Your task to perform on an android device: See recent photos Image 0: 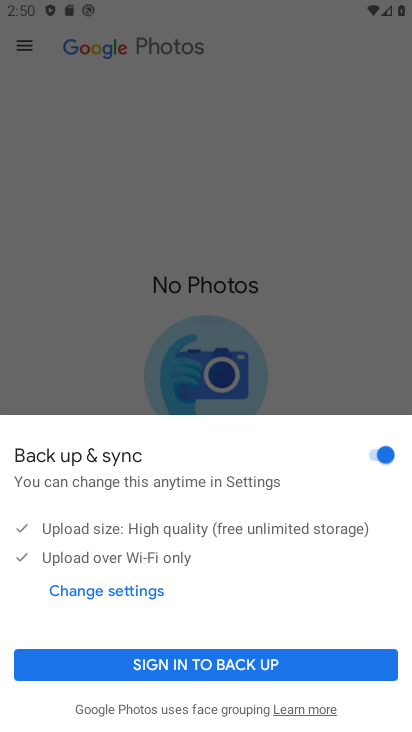
Step 0: press home button
Your task to perform on an android device: See recent photos Image 1: 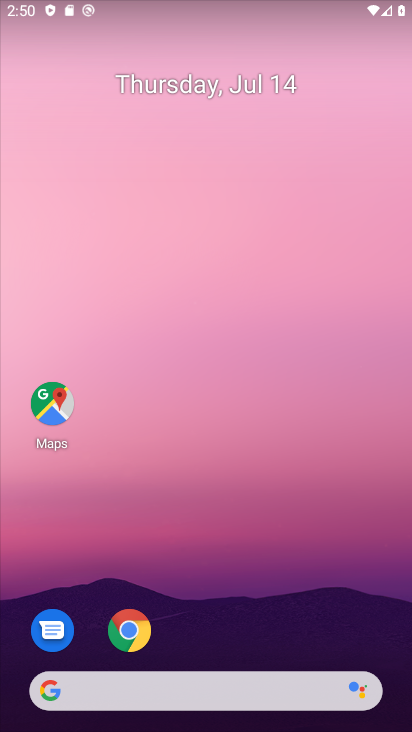
Step 1: drag from (236, 657) to (134, 92)
Your task to perform on an android device: See recent photos Image 2: 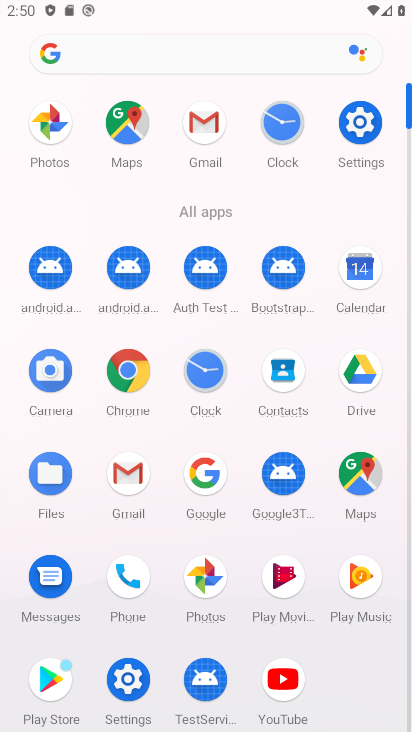
Step 2: click (58, 126)
Your task to perform on an android device: See recent photos Image 3: 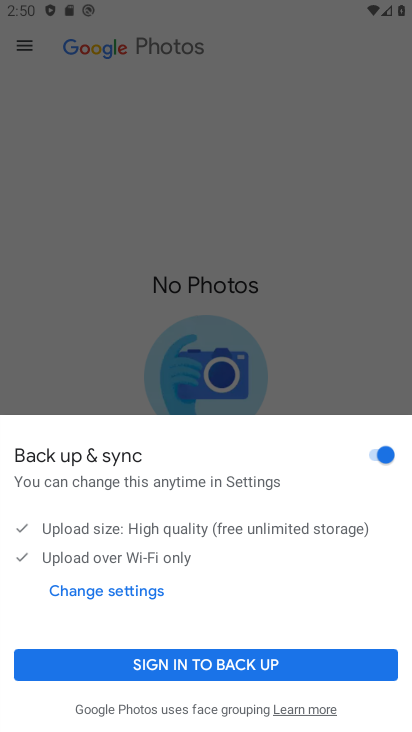
Step 3: click (184, 655)
Your task to perform on an android device: See recent photos Image 4: 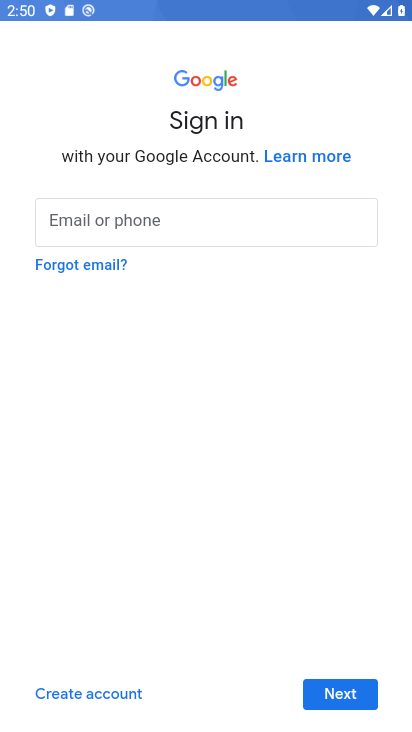
Step 4: press back button
Your task to perform on an android device: See recent photos Image 5: 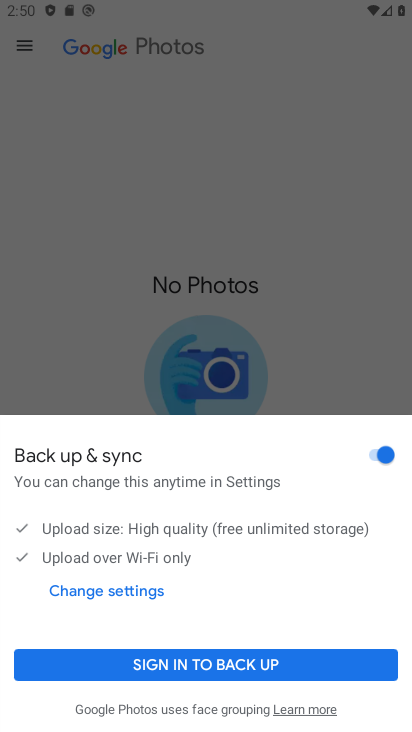
Step 5: press back button
Your task to perform on an android device: See recent photos Image 6: 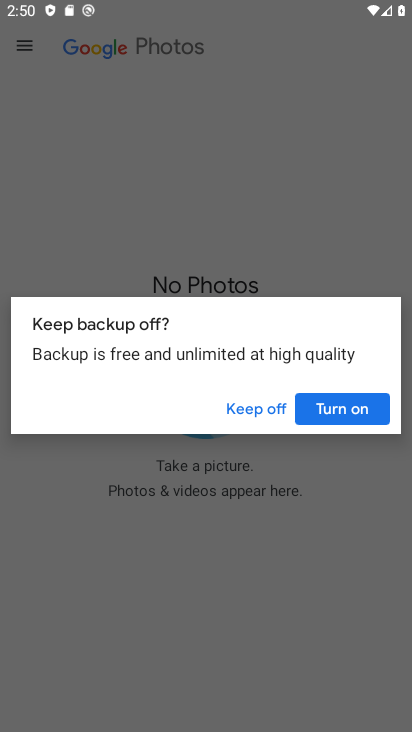
Step 6: click (335, 403)
Your task to perform on an android device: See recent photos Image 7: 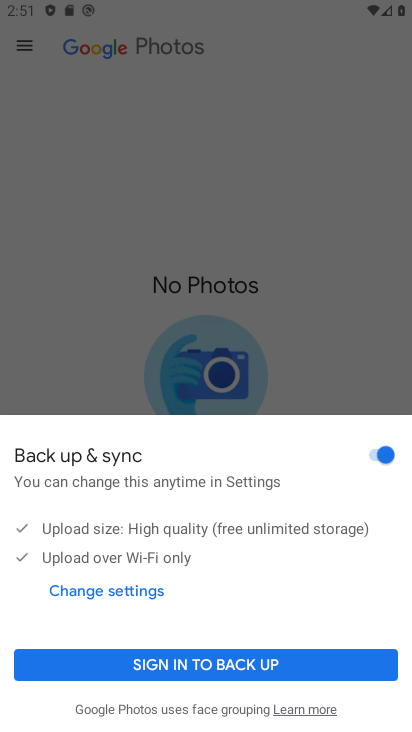
Step 7: click (148, 348)
Your task to perform on an android device: See recent photos Image 8: 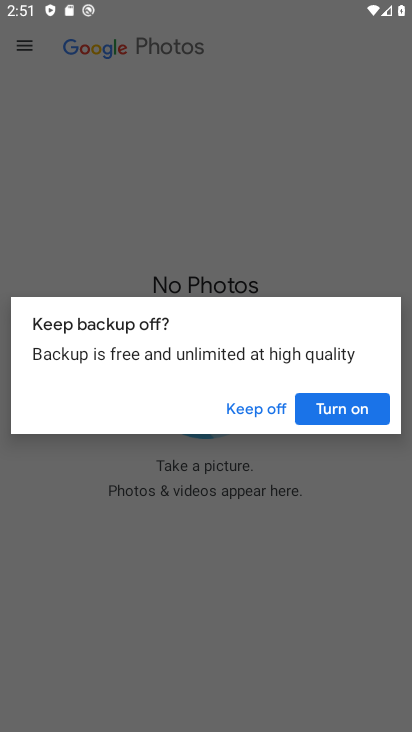
Step 8: click (259, 401)
Your task to perform on an android device: See recent photos Image 9: 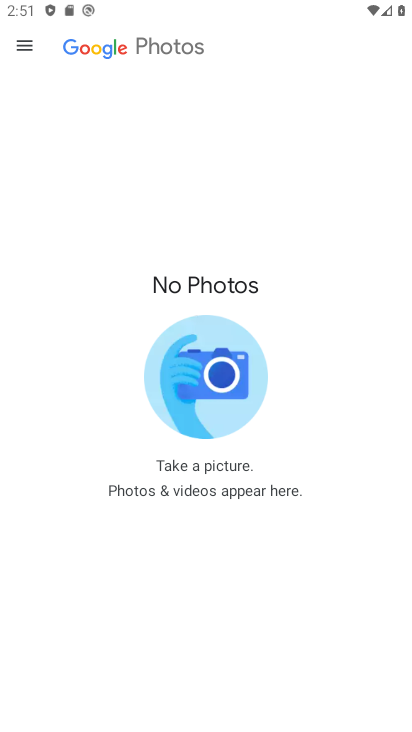
Step 9: task complete